Your task to perform on an android device: Open Maps and search for coffee Image 0: 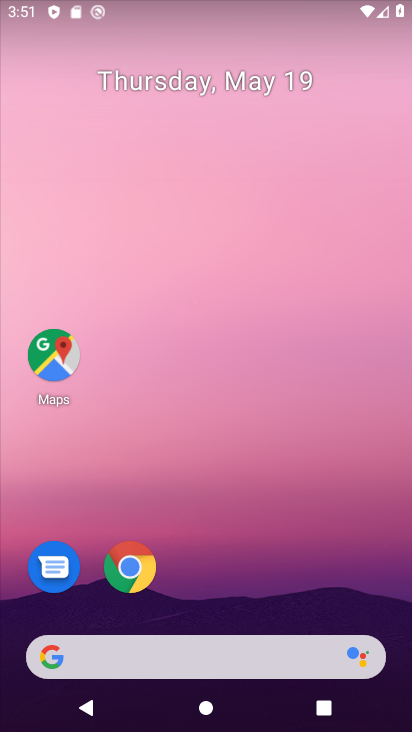
Step 0: click (368, 20)
Your task to perform on an android device: Open Maps and search for coffee Image 1: 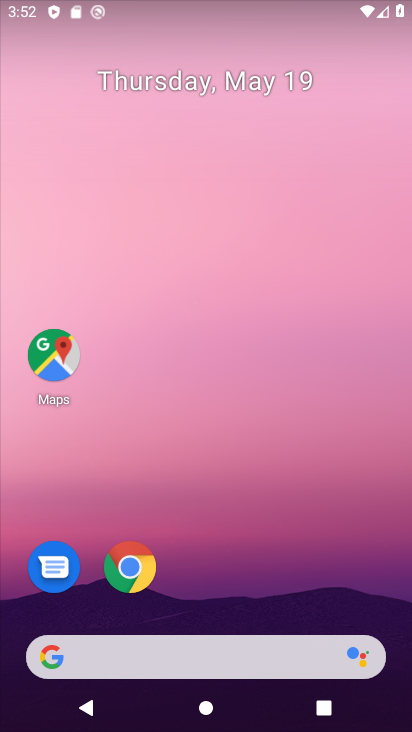
Step 1: drag from (208, 613) to (316, 5)
Your task to perform on an android device: Open Maps and search for coffee Image 2: 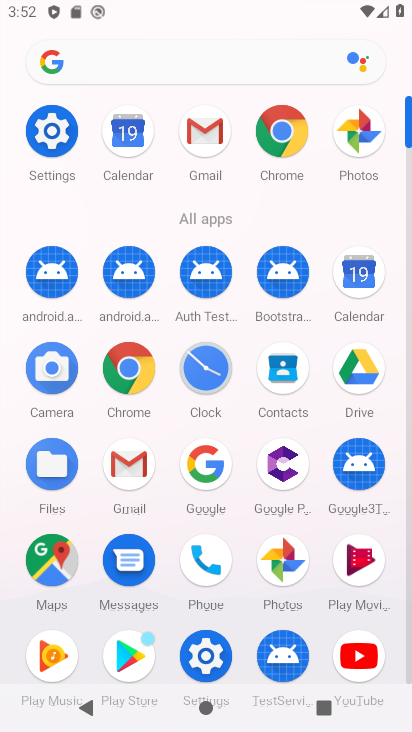
Step 2: click (45, 569)
Your task to perform on an android device: Open Maps and search for coffee Image 3: 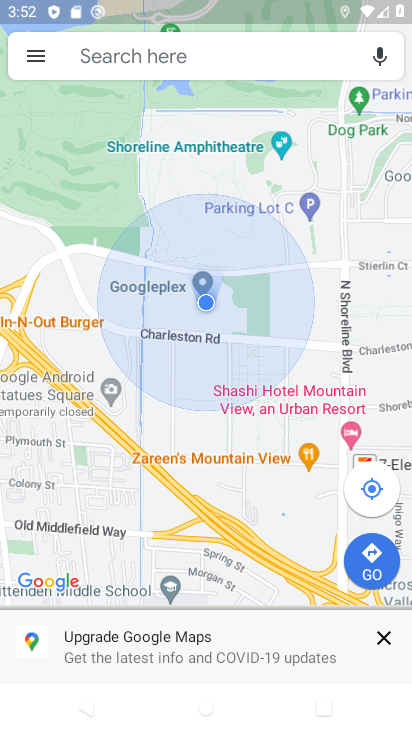
Step 3: click (386, 634)
Your task to perform on an android device: Open Maps and search for coffee Image 4: 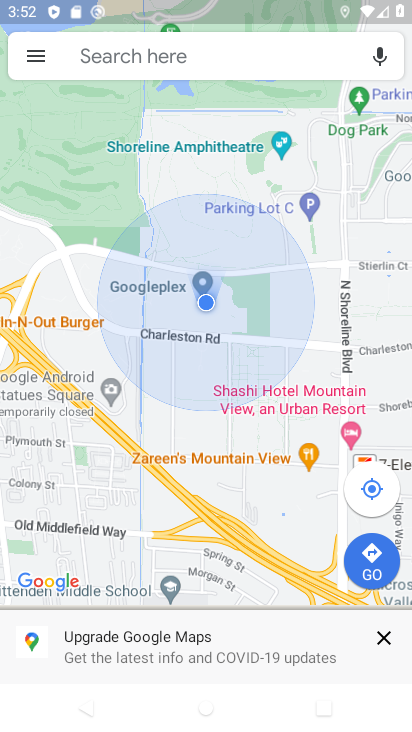
Step 4: click (187, 52)
Your task to perform on an android device: Open Maps and search for coffee Image 5: 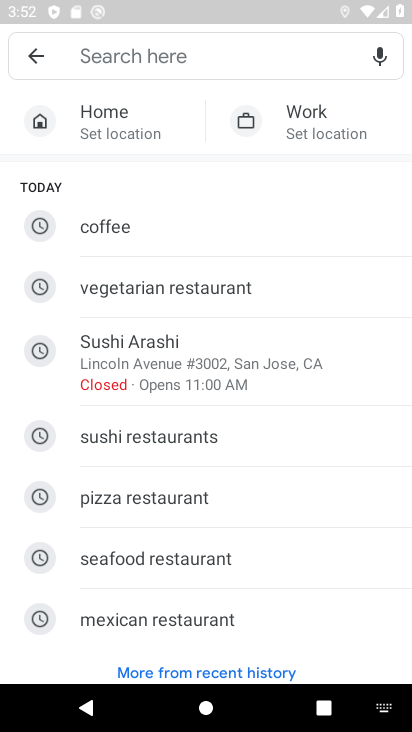
Step 5: click (126, 228)
Your task to perform on an android device: Open Maps and search for coffee Image 6: 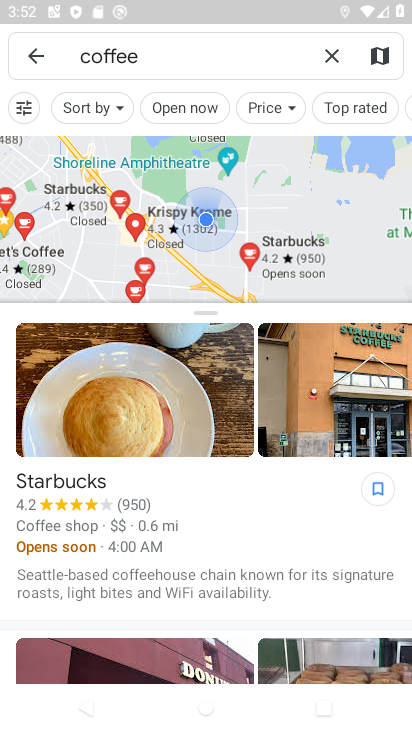
Step 6: task complete